Your task to perform on an android device: check data usage Image 0: 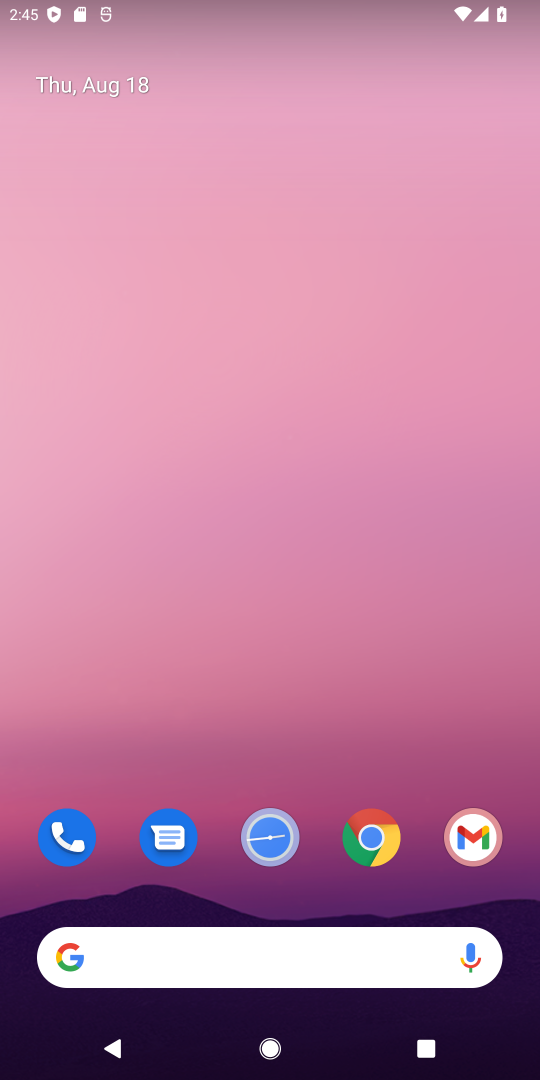
Step 0: drag from (335, 866) to (378, 0)
Your task to perform on an android device: check data usage Image 1: 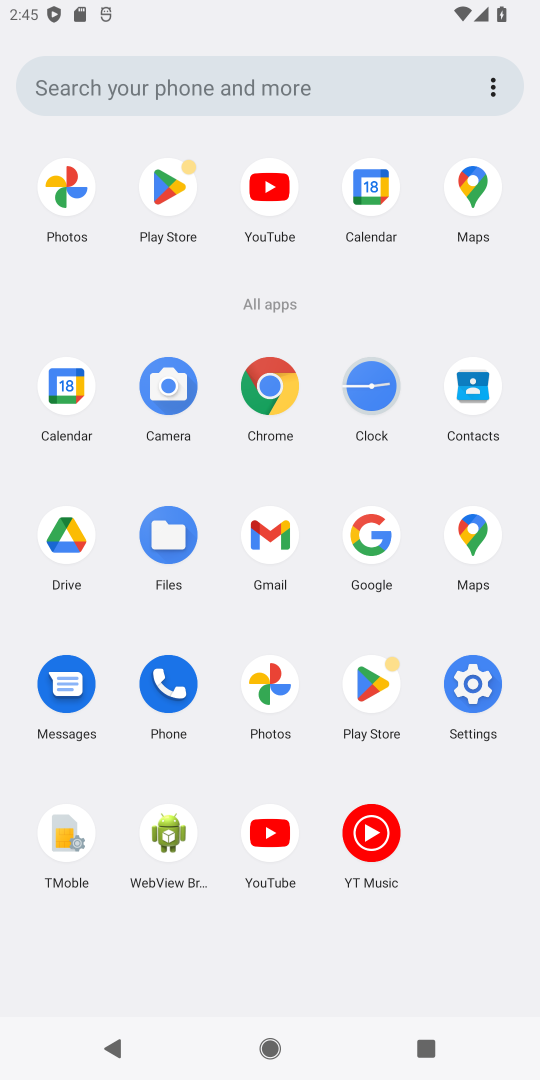
Step 1: click (484, 686)
Your task to perform on an android device: check data usage Image 2: 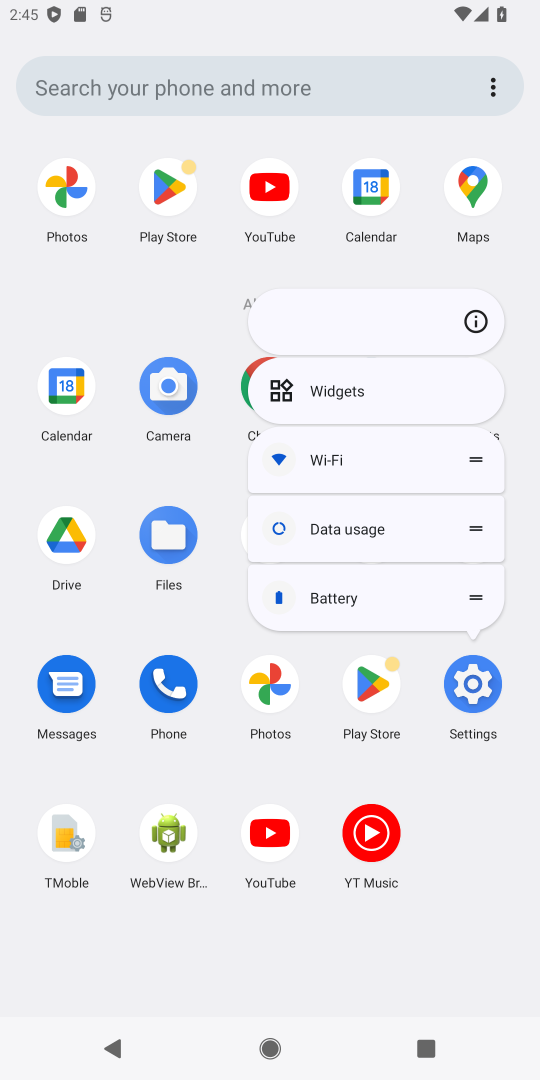
Step 2: click (473, 689)
Your task to perform on an android device: check data usage Image 3: 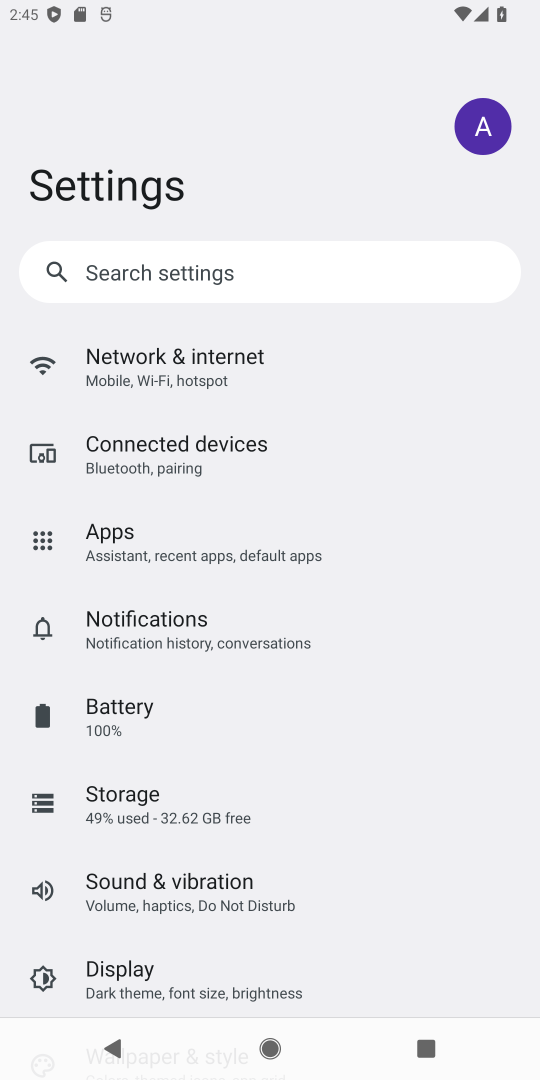
Step 3: click (127, 377)
Your task to perform on an android device: check data usage Image 4: 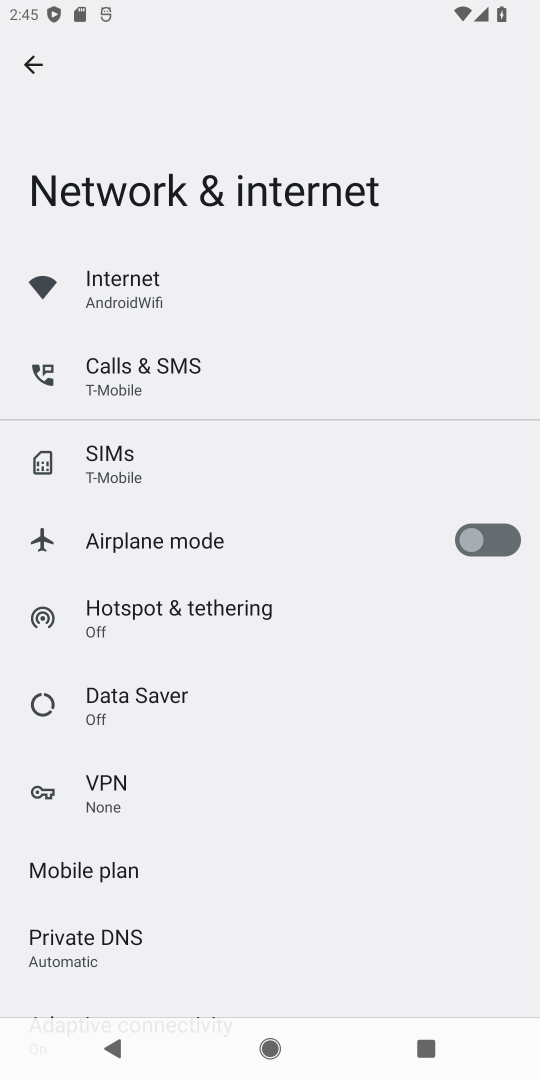
Step 4: click (128, 293)
Your task to perform on an android device: check data usage Image 5: 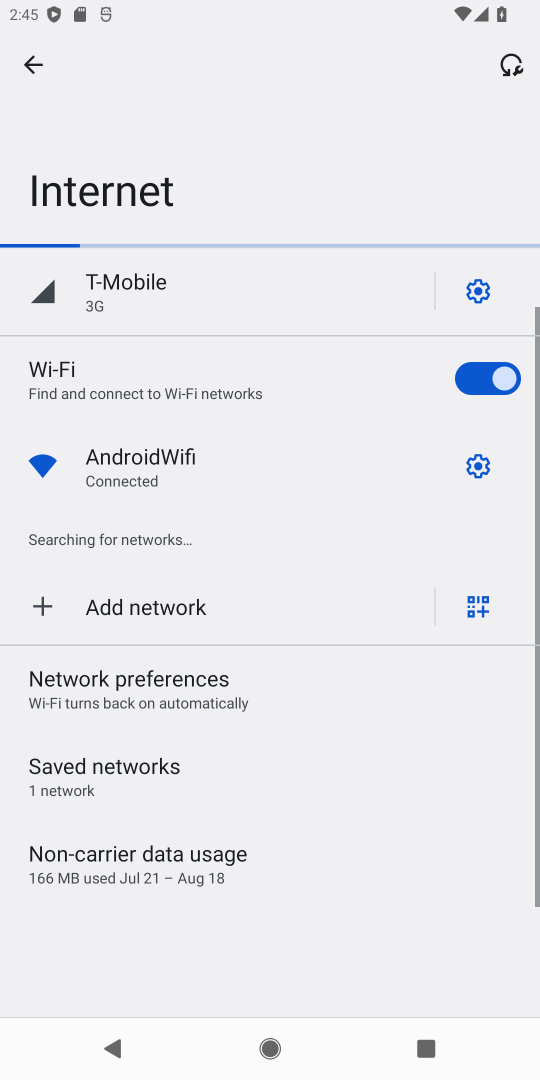
Step 5: click (128, 293)
Your task to perform on an android device: check data usage Image 6: 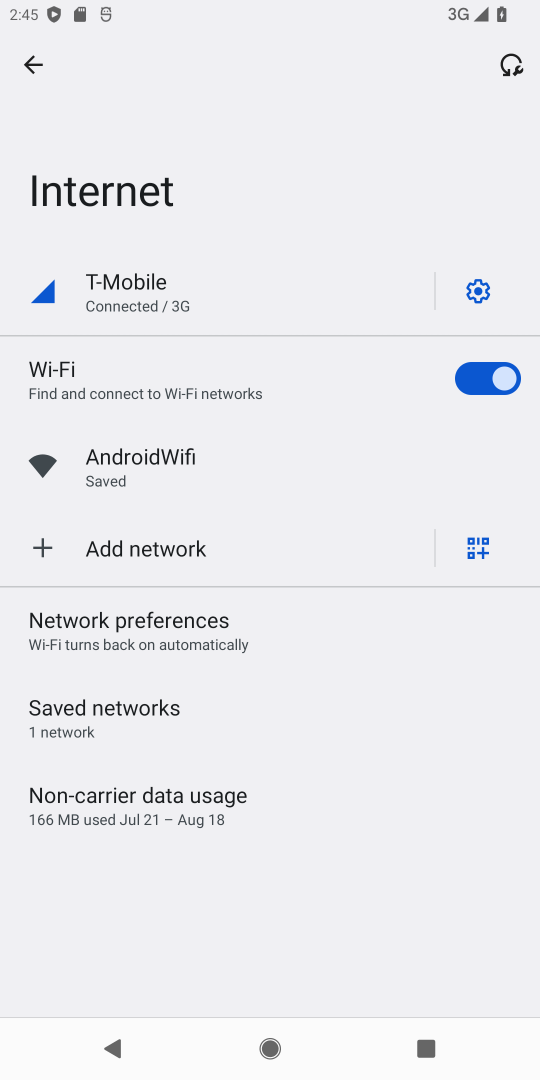
Step 6: click (475, 295)
Your task to perform on an android device: check data usage Image 7: 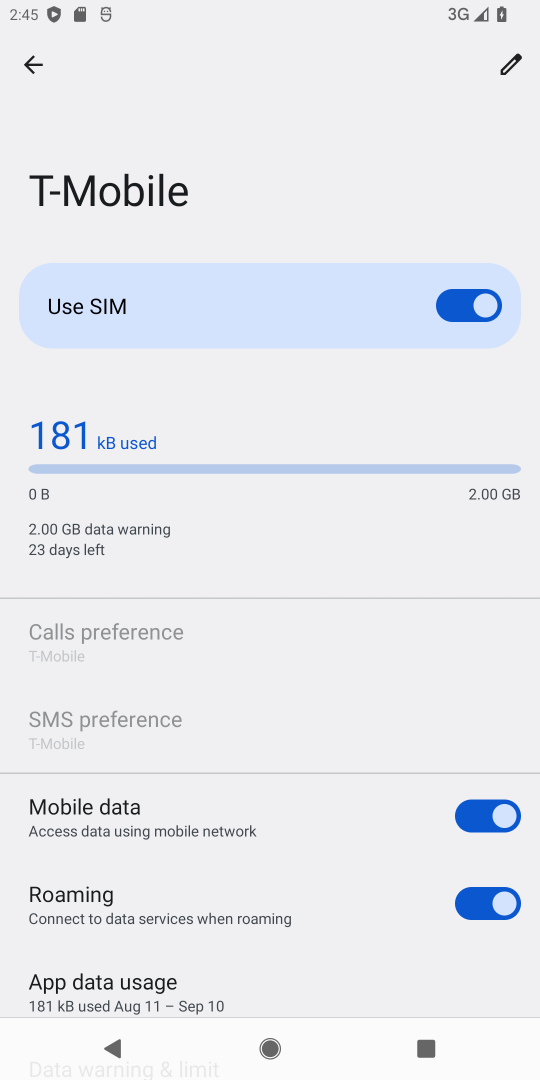
Step 7: task complete